Your task to perform on an android device: set default search engine in the chrome app Image 0: 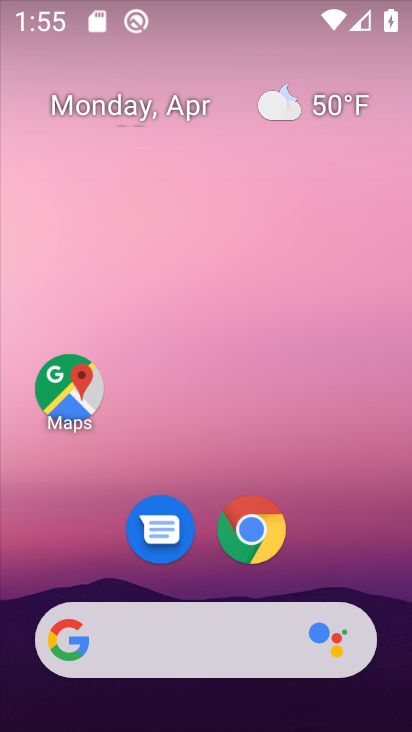
Step 0: click (252, 521)
Your task to perform on an android device: set default search engine in the chrome app Image 1: 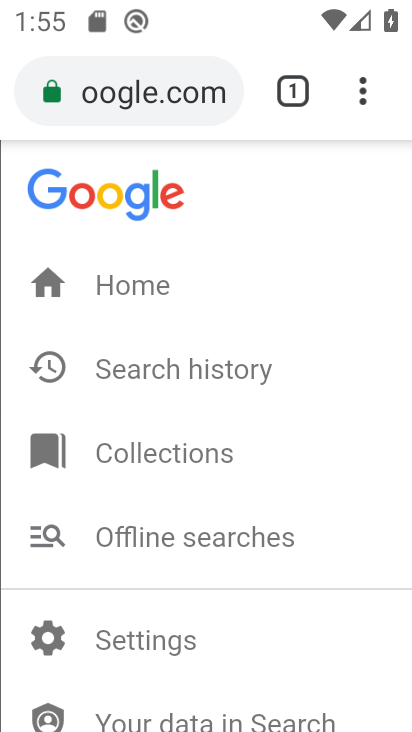
Step 1: click (361, 88)
Your task to perform on an android device: set default search engine in the chrome app Image 2: 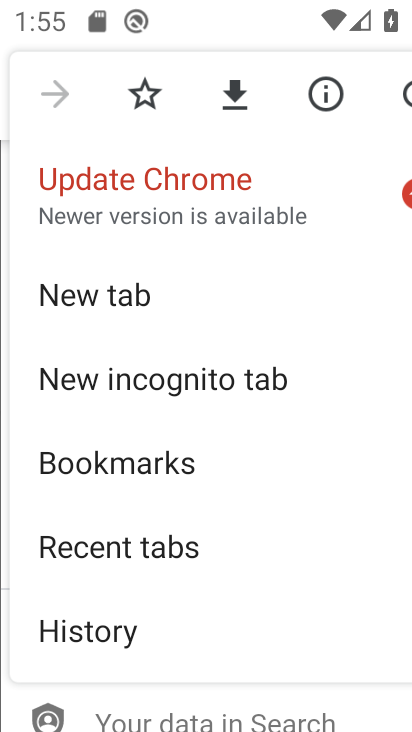
Step 2: drag from (306, 488) to (304, 276)
Your task to perform on an android device: set default search engine in the chrome app Image 3: 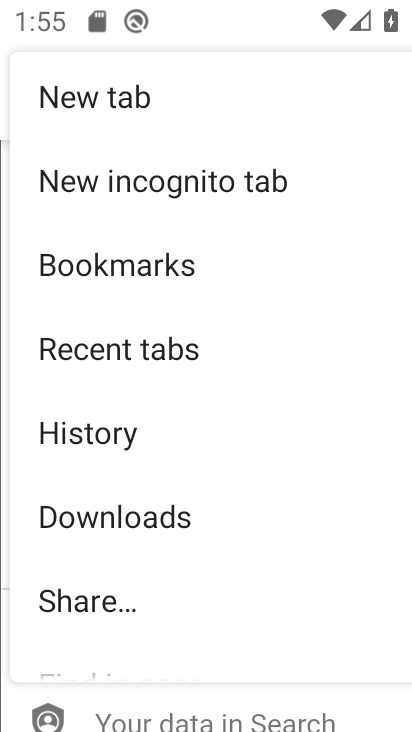
Step 3: drag from (266, 381) to (242, 191)
Your task to perform on an android device: set default search engine in the chrome app Image 4: 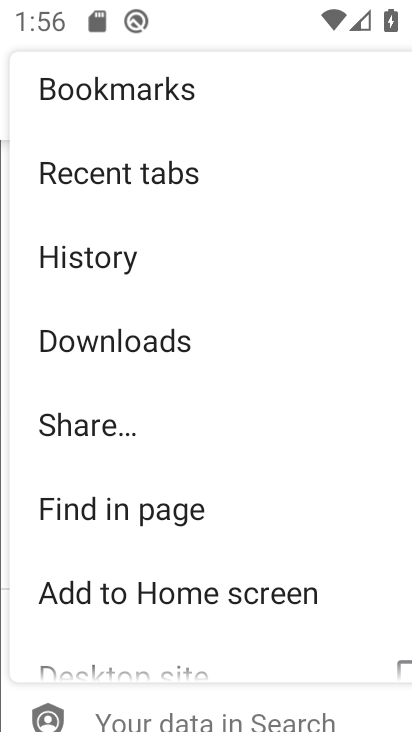
Step 4: drag from (332, 437) to (332, 320)
Your task to perform on an android device: set default search engine in the chrome app Image 5: 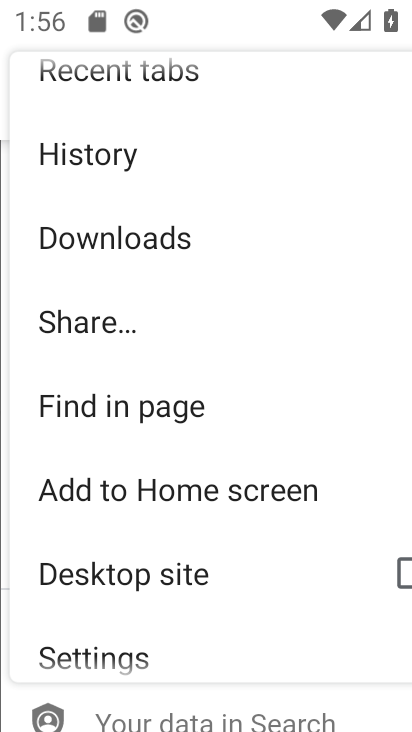
Step 5: click (80, 646)
Your task to perform on an android device: set default search engine in the chrome app Image 6: 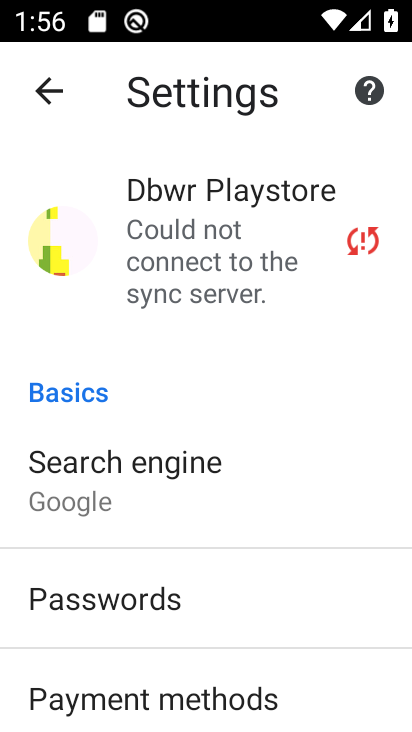
Step 6: drag from (315, 606) to (309, 310)
Your task to perform on an android device: set default search engine in the chrome app Image 7: 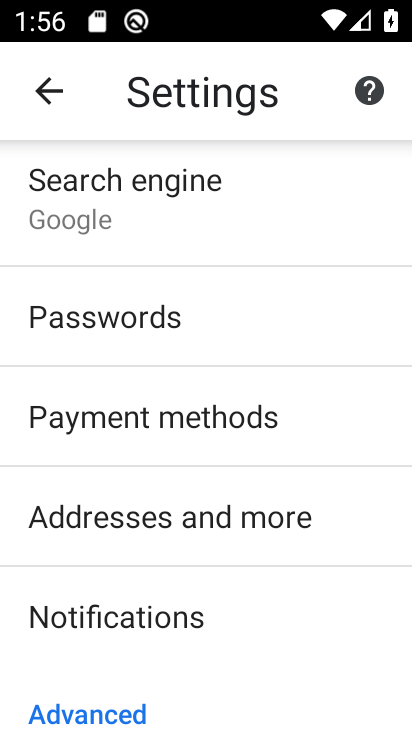
Step 7: drag from (312, 700) to (345, 336)
Your task to perform on an android device: set default search engine in the chrome app Image 8: 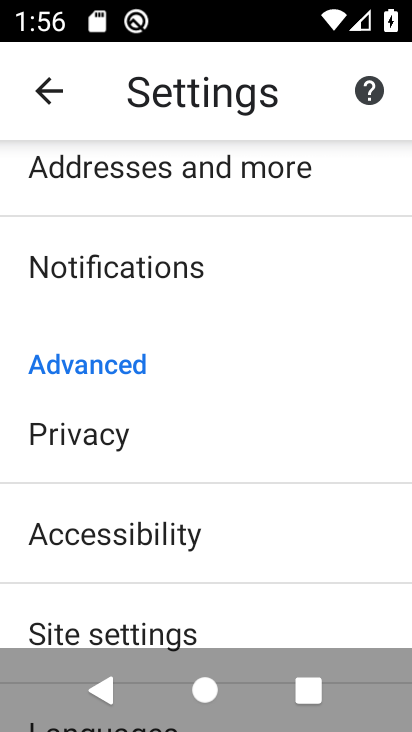
Step 8: drag from (322, 620) to (314, 231)
Your task to perform on an android device: set default search engine in the chrome app Image 9: 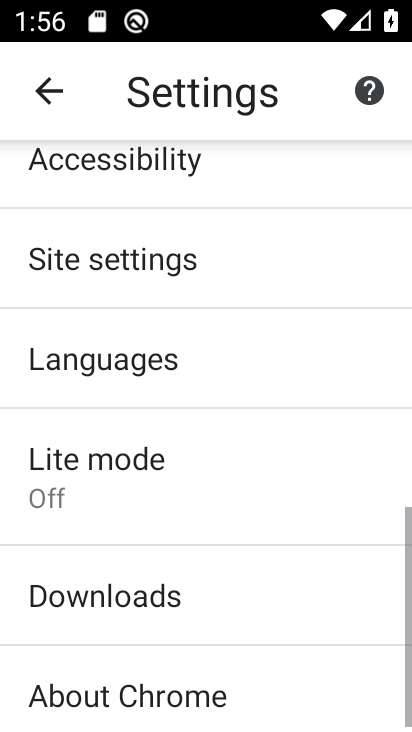
Step 9: drag from (307, 659) to (320, 275)
Your task to perform on an android device: set default search engine in the chrome app Image 10: 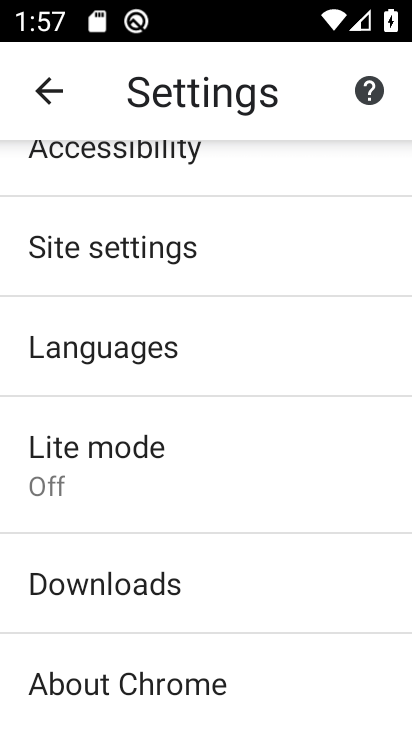
Step 10: drag from (311, 605) to (303, 349)
Your task to perform on an android device: set default search engine in the chrome app Image 11: 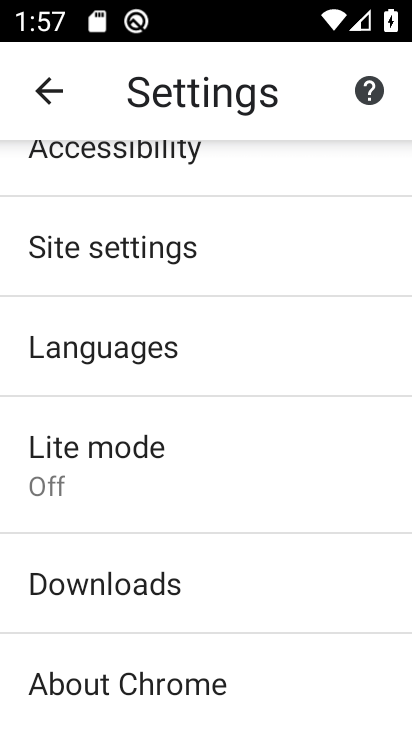
Step 11: click (100, 245)
Your task to perform on an android device: set default search engine in the chrome app Image 12: 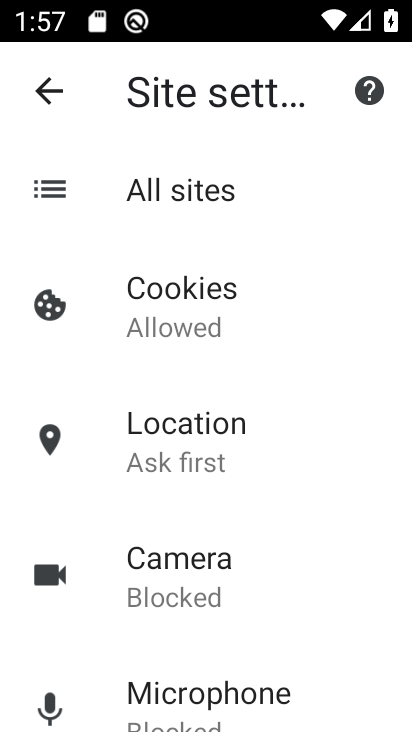
Step 12: click (48, 100)
Your task to perform on an android device: set default search engine in the chrome app Image 13: 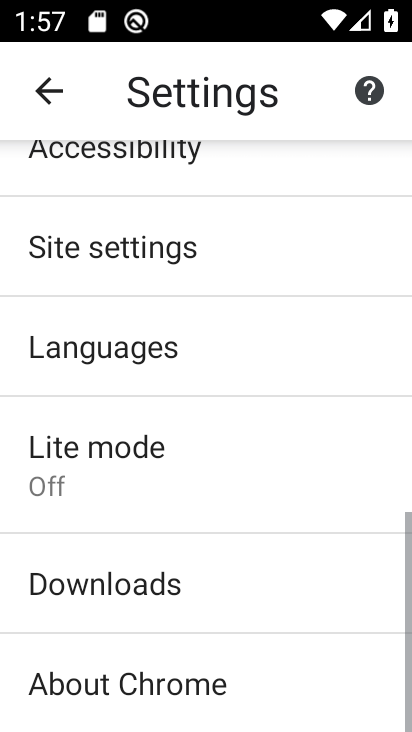
Step 13: drag from (304, 312) to (306, 634)
Your task to perform on an android device: set default search engine in the chrome app Image 14: 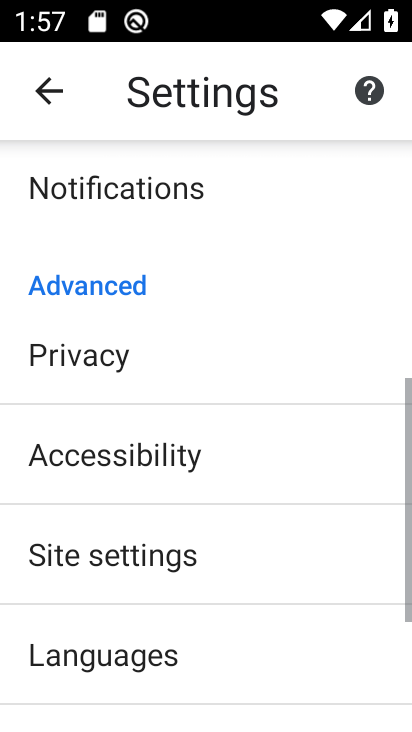
Step 14: drag from (309, 326) to (332, 637)
Your task to perform on an android device: set default search engine in the chrome app Image 15: 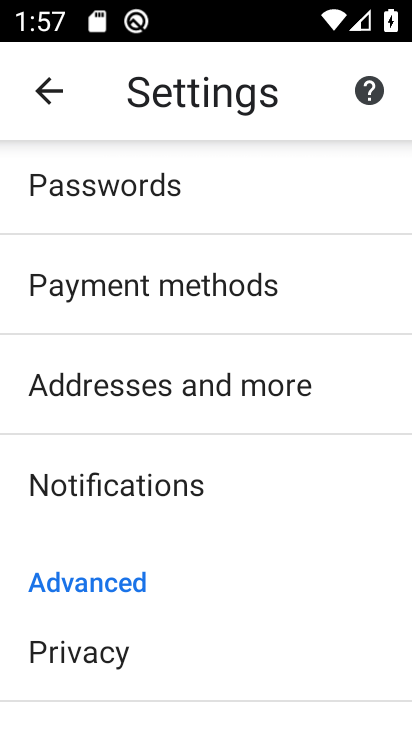
Step 15: drag from (353, 500) to (362, 630)
Your task to perform on an android device: set default search engine in the chrome app Image 16: 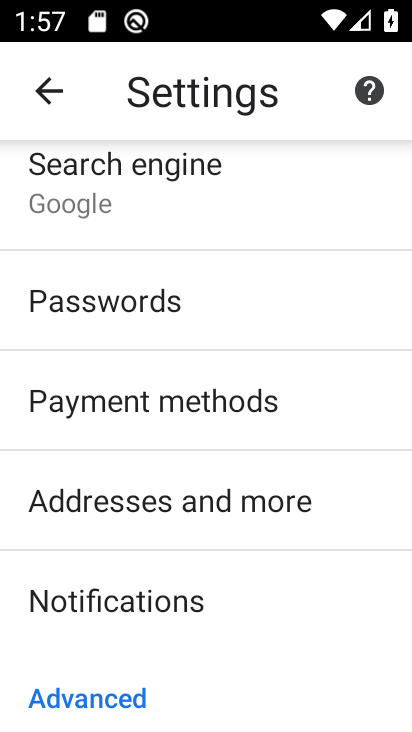
Step 16: drag from (318, 210) to (344, 650)
Your task to perform on an android device: set default search engine in the chrome app Image 17: 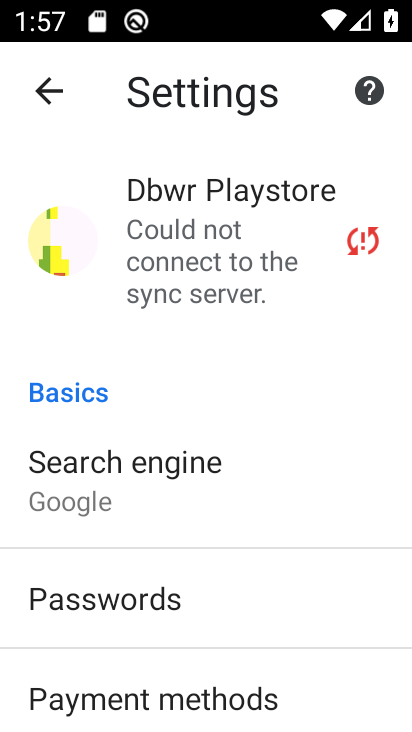
Step 17: click (73, 471)
Your task to perform on an android device: set default search engine in the chrome app Image 18: 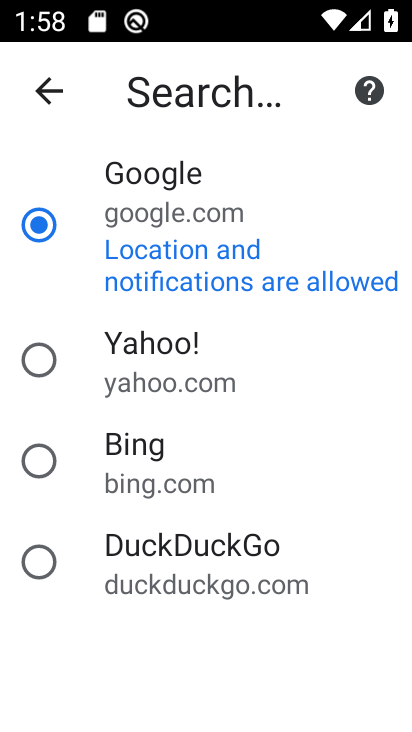
Step 18: task complete